Your task to perform on an android device: remove spam from my inbox in the gmail app Image 0: 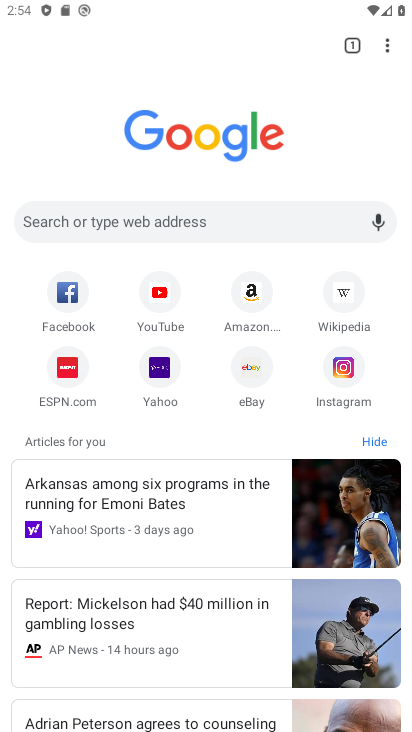
Step 0: press home button
Your task to perform on an android device: remove spam from my inbox in the gmail app Image 1: 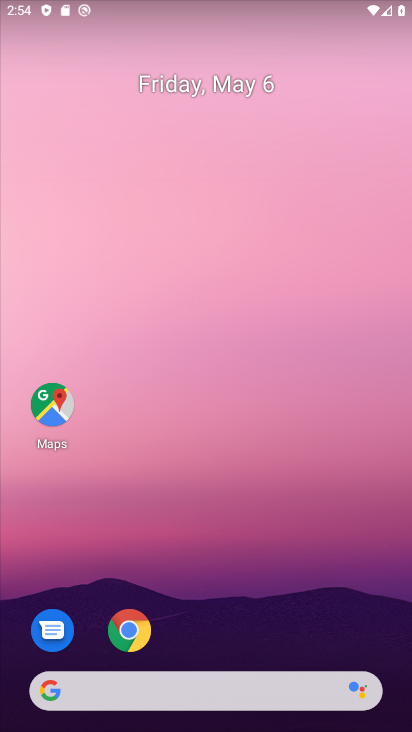
Step 1: drag from (250, 583) to (165, 48)
Your task to perform on an android device: remove spam from my inbox in the gmail app Image 2: 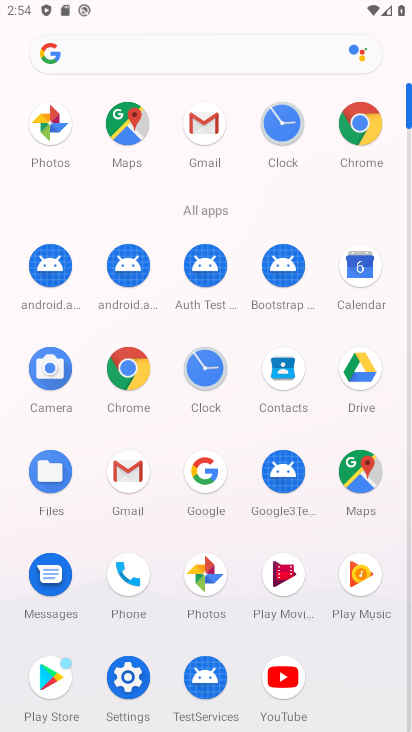
Step 2: click (128, 464)
Your task to perform on an android device: remove spam from my inbox in the gmail app Image 3: 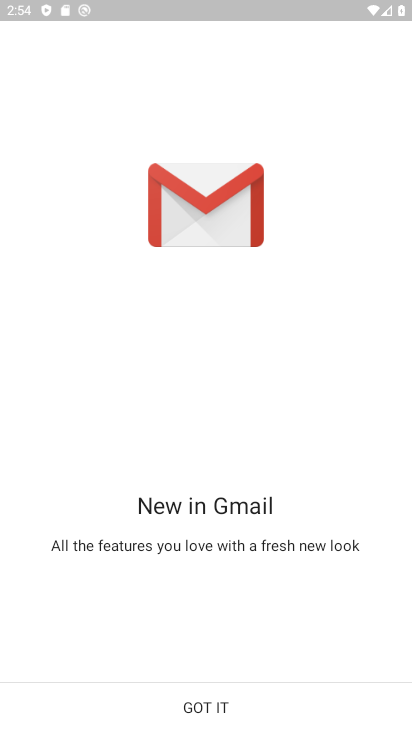
Step 3: click (221, 695)
Your task to perform on an android device: remove spam from my inbox in the gmail app Image 4: 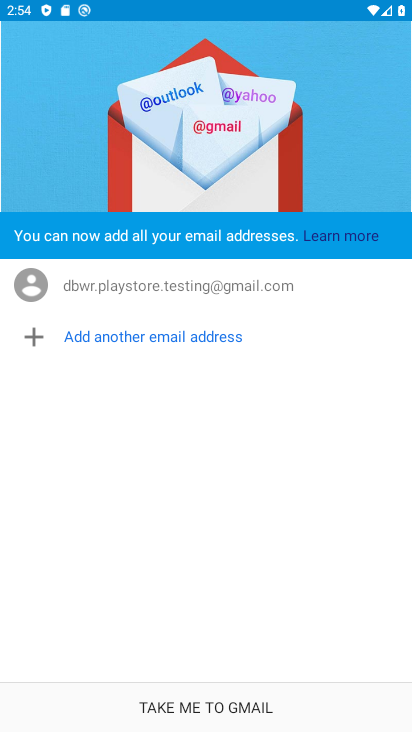
Step 4: click (213, 700)
Your task to perform on an android device: remove spam from my inbox in the gmail app Image 5: 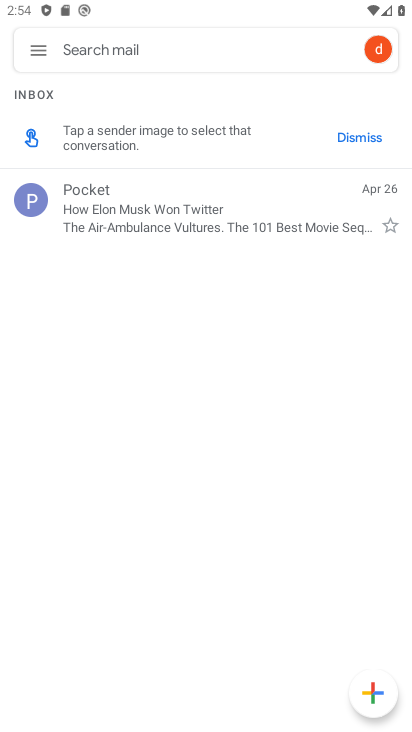
Step 5: click (35, 55)
Your task to perform on an android device: remove spam from my inbox in the gmail app Image 6: 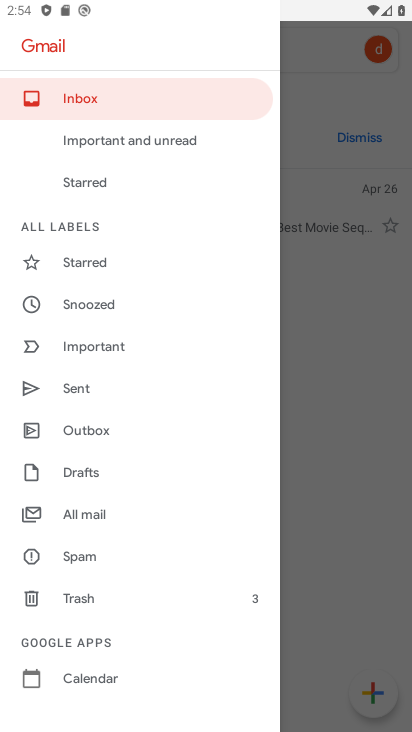
Step 6: click (111, 557)
Your task to perform on an android device: remove spam from my inbox in the gmail app Image 7: 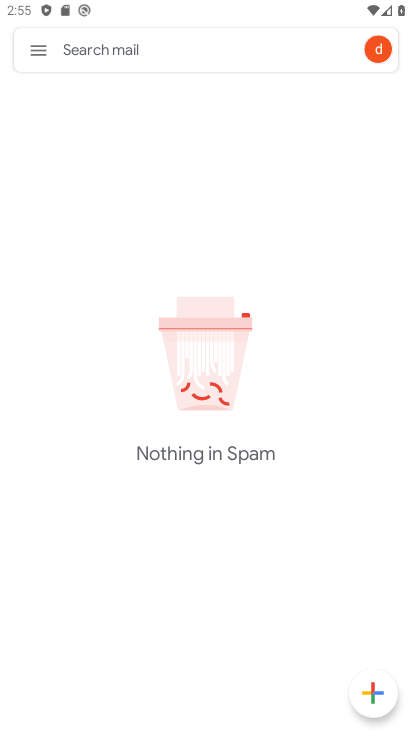
Step 7: task complete